Your task to perform on an android device: delete a single message in the gmail app Image 0: 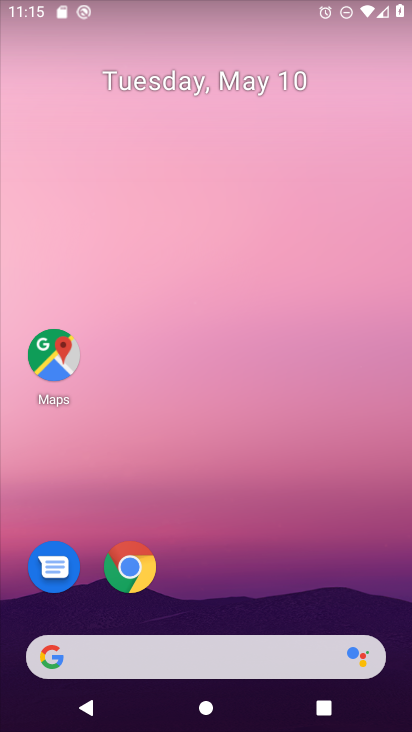
Step 0: click (204, 283)
Your task to perform on an android device: delete a single message in the gmail app Image 1: 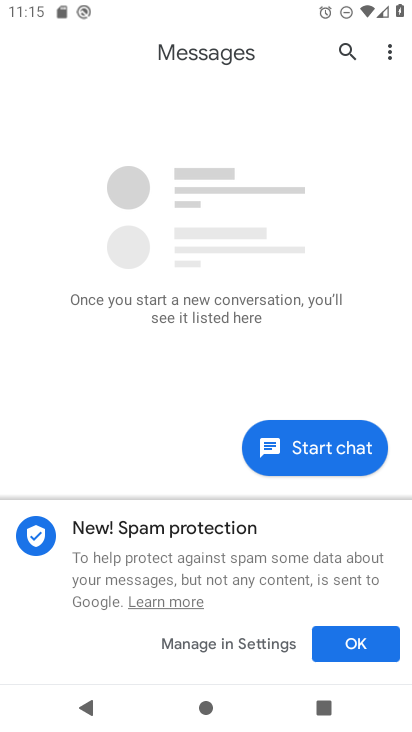
Step 1: press home button
Your task to perform on an android device: delete a single message in the gmail app Image 2: 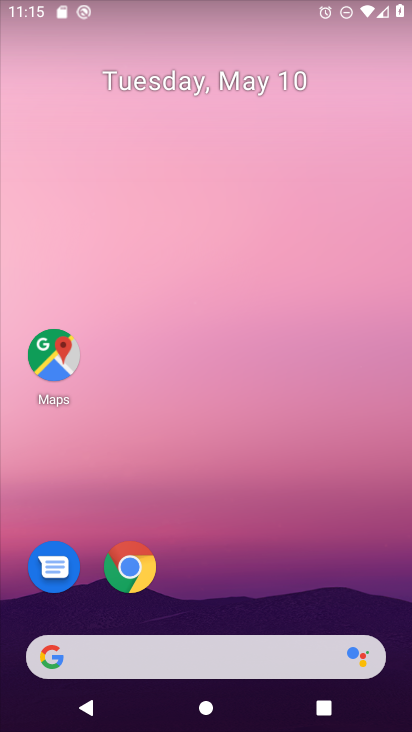
Step 2: drag from (191, 618) to (215, 117)
Your task to perform on an android device: delete a single message in the gmail app Image 3: 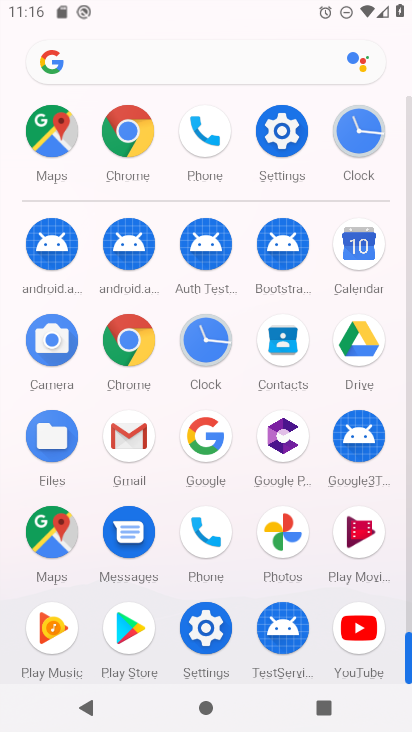
Step 3: click (147, 449)
Your task to perform on an android device: delete a single message in the gmail app Image 4: 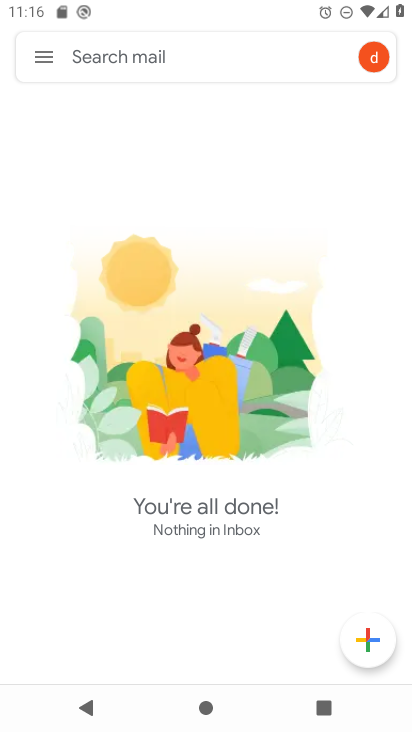
Step 4: task complete